Your task to perform on an android device: Open my contact list Image 0: 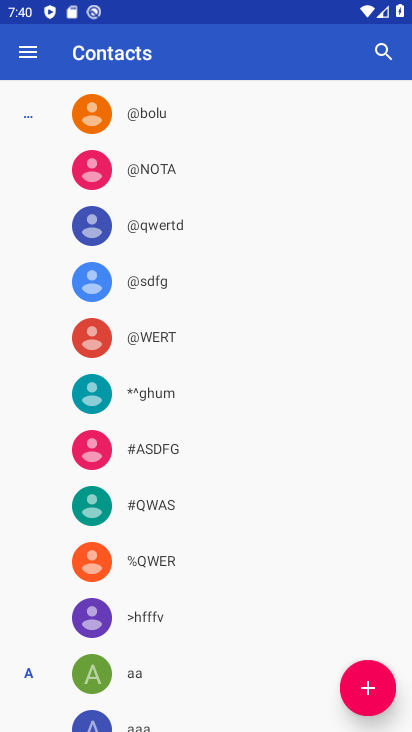
Step 0: press home button
Your task to perform on an android device: Open my contact list Image 1: 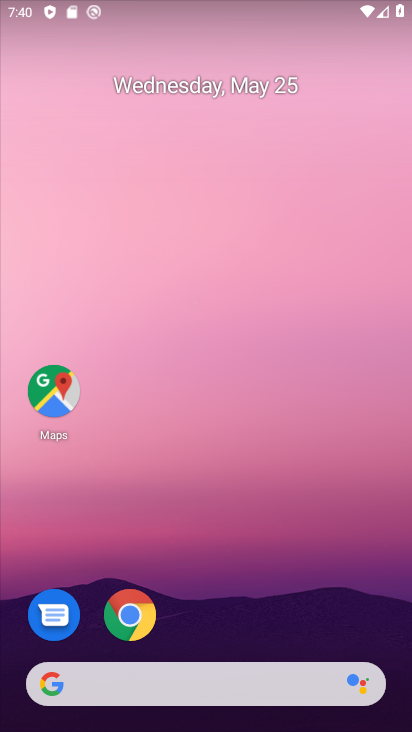
Step 1: drag from (234, 551) to (266, 4)
Your task to perform on an android device: Open my contact list Image 2: 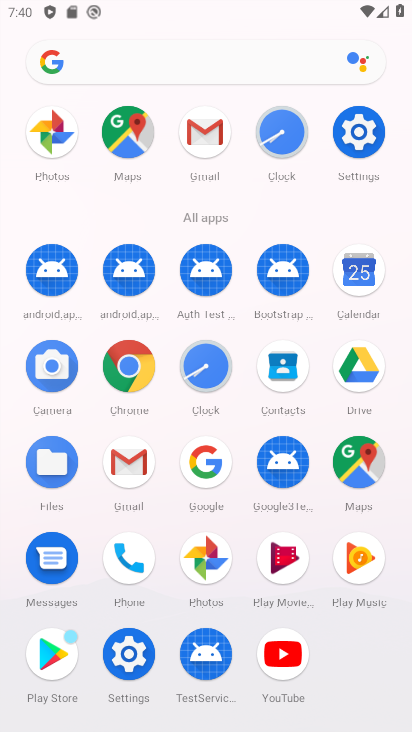
Step 2: click (277, 368)
Your task to perform on an android device: Open my contact list Image 3: 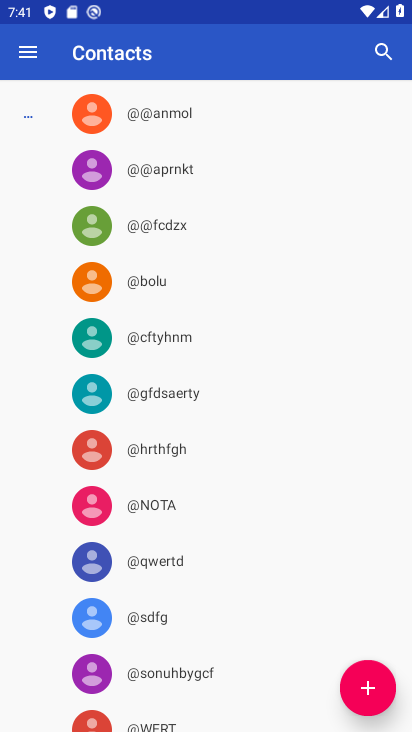
Step 3: task complete